Your task to perform on an android device: turn on bluetooth scan Image 0: 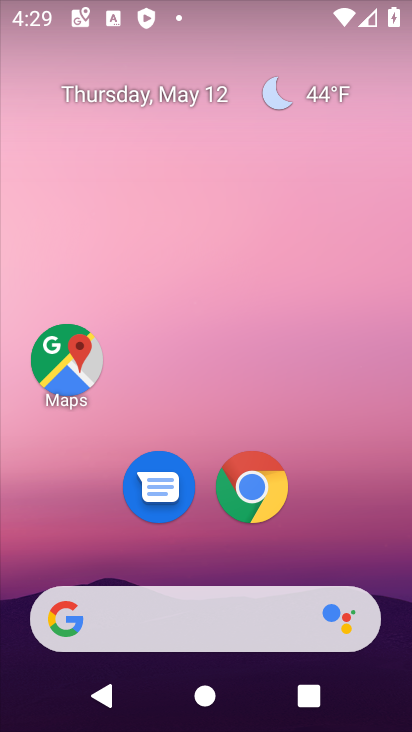
Step 0: drag from (252, 568) to (300, 96)
Your task to perform on an android device: turn on bluetooth scan Image 1: 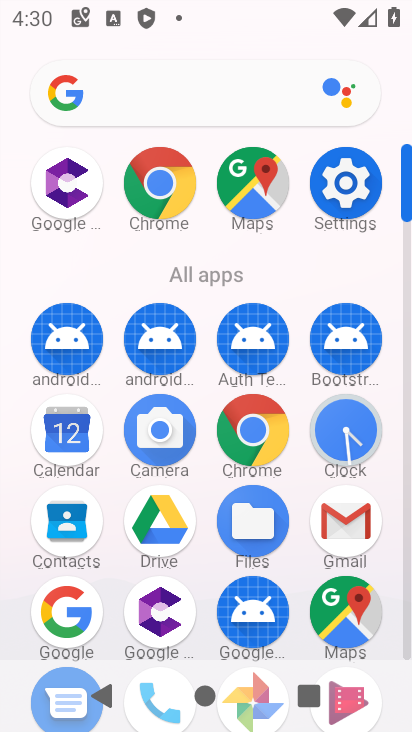
Step 1: click (327, 187)
Your task to perform on an android device: turn on bluetooth scan Image 2: 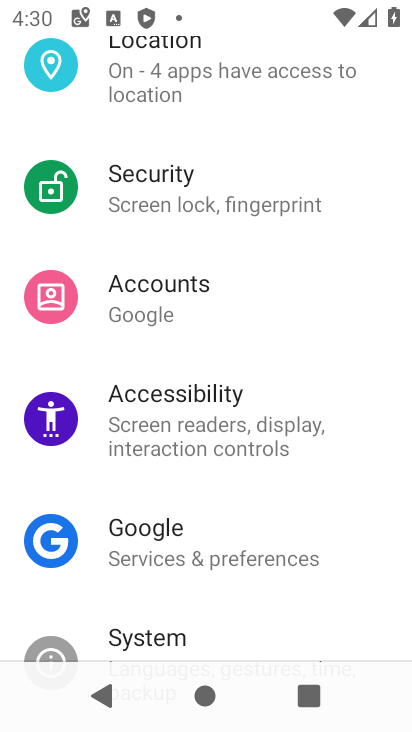
Step 2: drag from (251, 592) to (257, 235)
Your task to perform on an android device: turn on bluetooth scan Image 3: 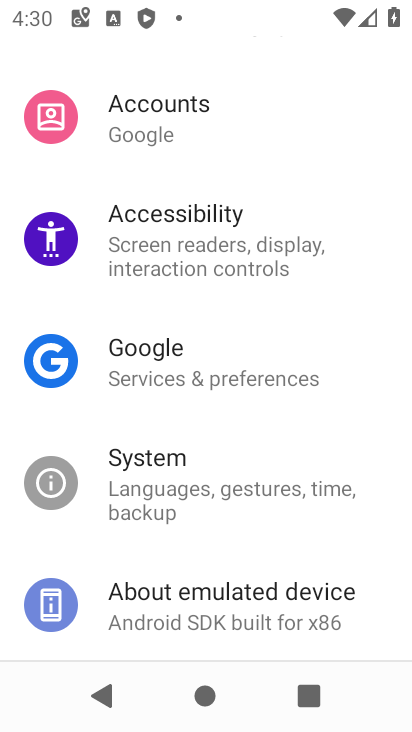
Step 3: drag from (255, 548) to (291, 252)
Your task to perform on an android device: turn on bluetooth scan Image 4: 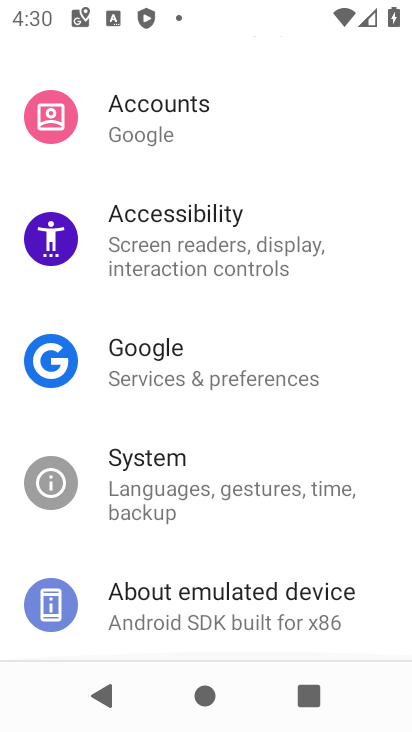
Step 4: drag from (330, 137) to (297, 616)
Your task to perform on an android device: turn on bluetooth scan Image 5: 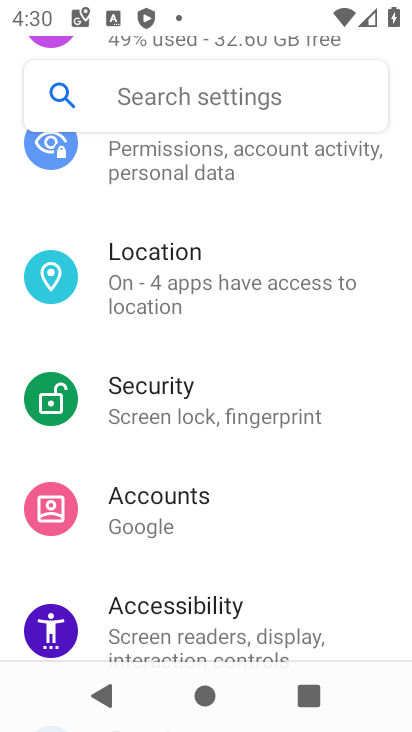
Step 5: click (233, 283)
Your task to perform on an android device: turn on bluetooth scan Image 6: 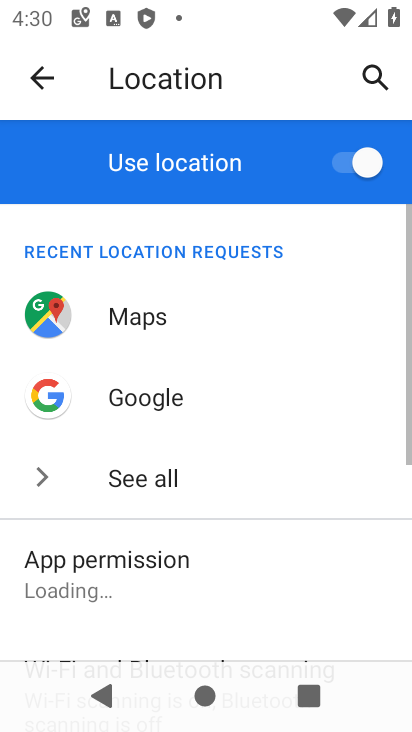
Step 6: drag from (240, 604) to (262, 189)
Your task to perform on an android device: turn on bluetooth scan Image 7: 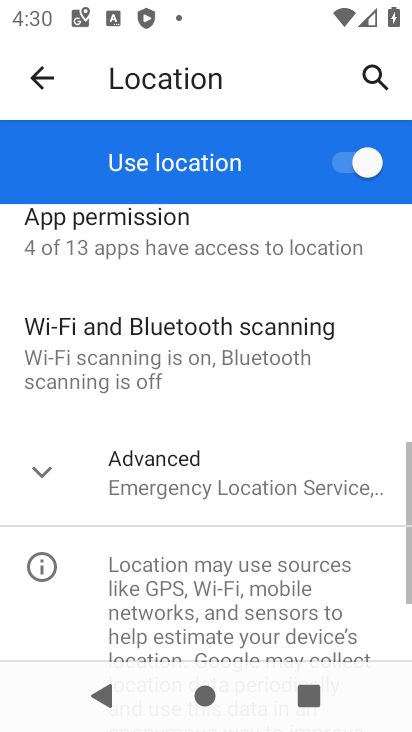
Step 7: click (222, 363)
Your task to perform on an android device: turn on bluetooth scan Image 8: 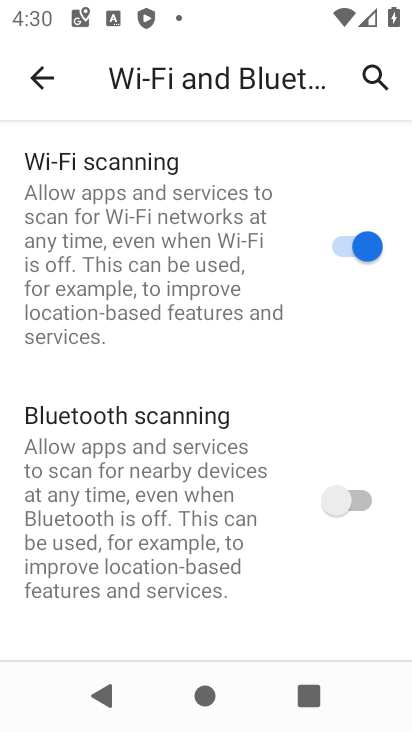
Step 8: click (364, 503)
Your task to perform on an android device: turn on bluetooth scan Image 9: 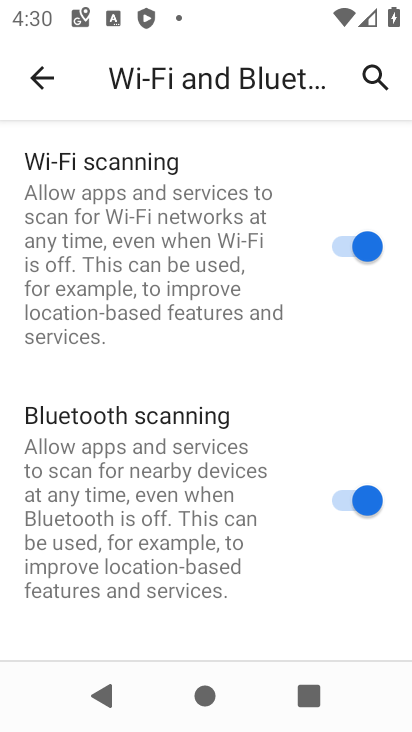
Step 9: task complete